Your task to perform on an android device: toggle notifications settings in the gmail app Image 0: 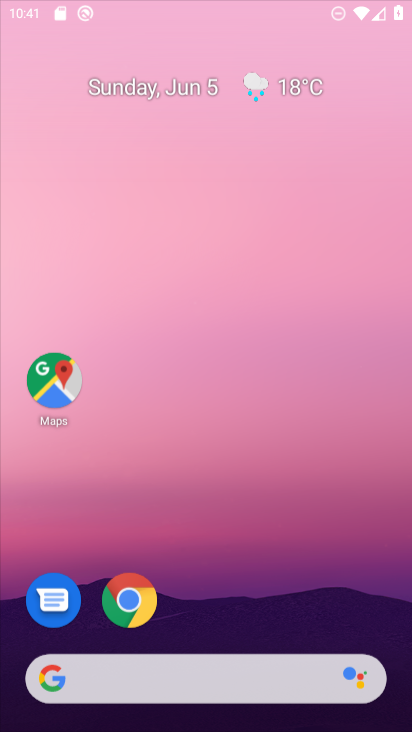
Step 0: click (177, 96)
Your task to perform on an android device: toggle notifications settings in the gmail app Image 1: 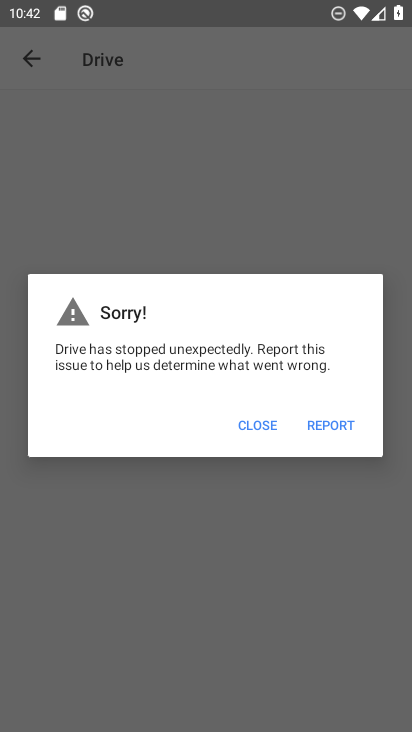
Step 1: press home button
Your task to perform on an android device: toggle notifications settings in the gmail app Image 2: 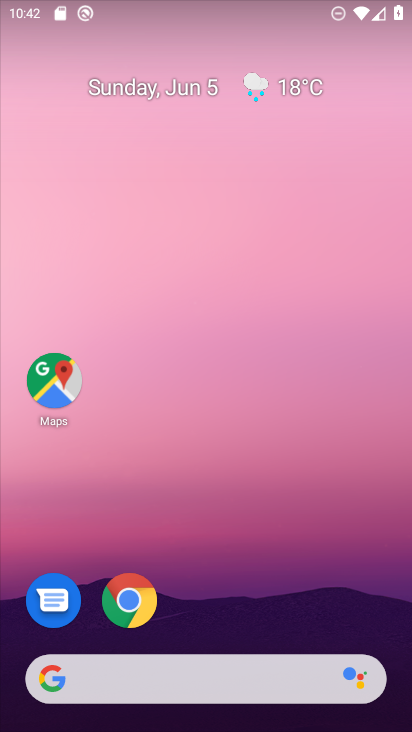
Step 2: drag from (209, 592) to (276, 68)
Your task to perform on an android device: toggle notifications settings in the gmail app Image 3: 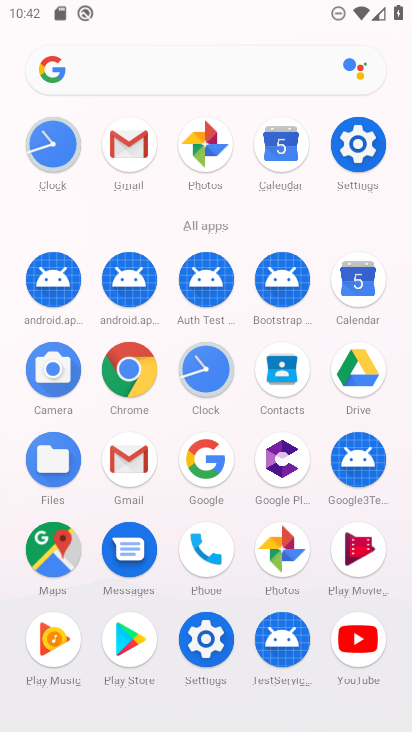
Step 3: click (127, 145)
Your task to perform on an android device: toggle notifications settings in the gmail app Image 4: 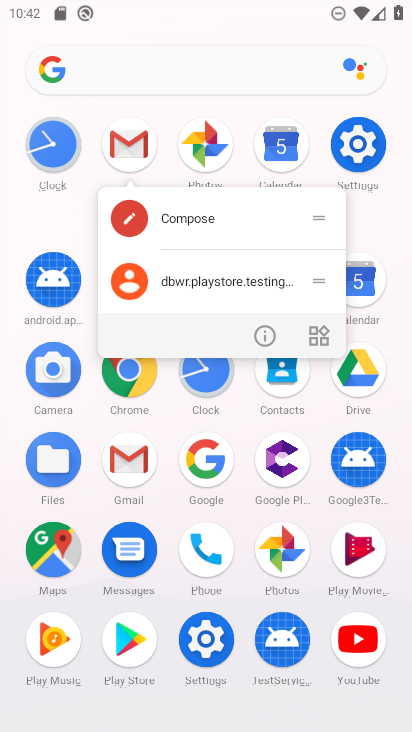
Step 4: click (266, 334)
Your task to perform on an android device: toggle notifications settings in the gmail app Image 5: 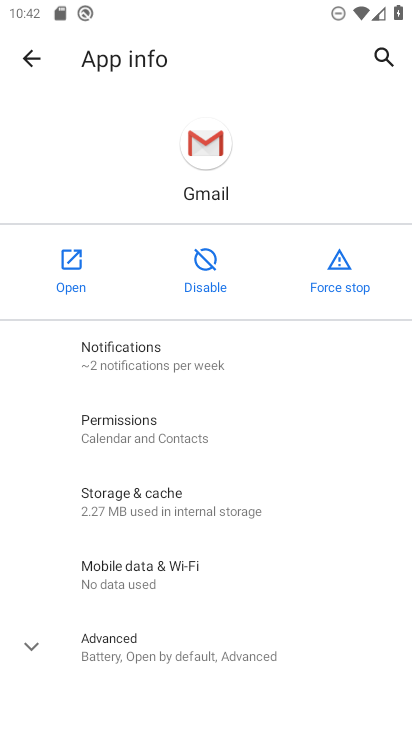
Step 5: click (158, 363)
Your task to perform on an android device: toggle notifications settings in the gmail app Image 6: 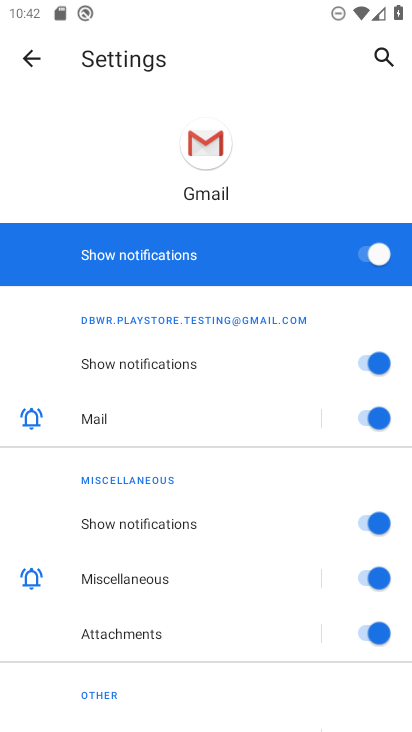
Step 6: click (382, 242)
Your task to perform on an android device: toggle notifications settings in the gmail app Image 7: 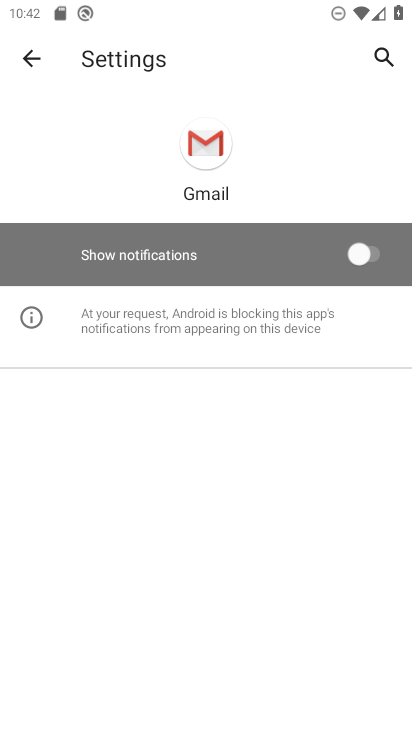
Step 7: task complete